Your task to perform on an android device: Open Google Maps and go to "Timeline" Image 0: 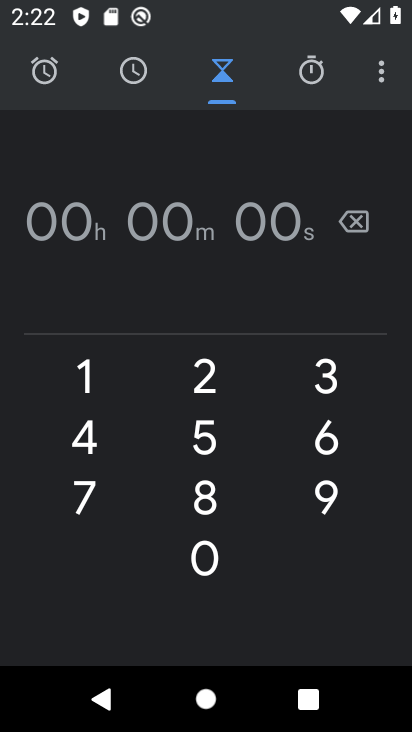
Step 0: press home button
Your task to perform on an android device: Open Google Maps and go to "Timeline" Image 1: 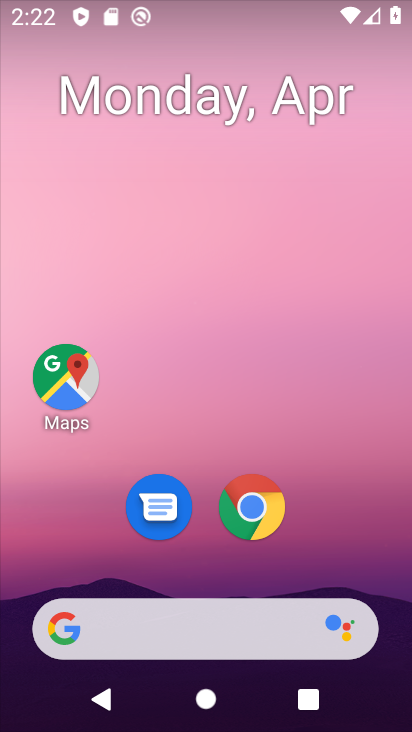
Step 1: drag from (385, 594) to (372, 534)
Your task to perform on an android device: Open Google Maps and go to "Timeline" Image 2: 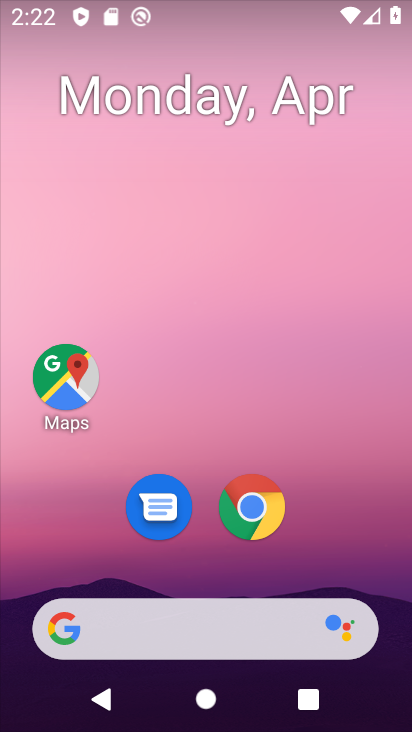
Step 2: click (58, 373)
Your task to perform on an android device: Open Google Maps and go to "Timeline" Image 3: 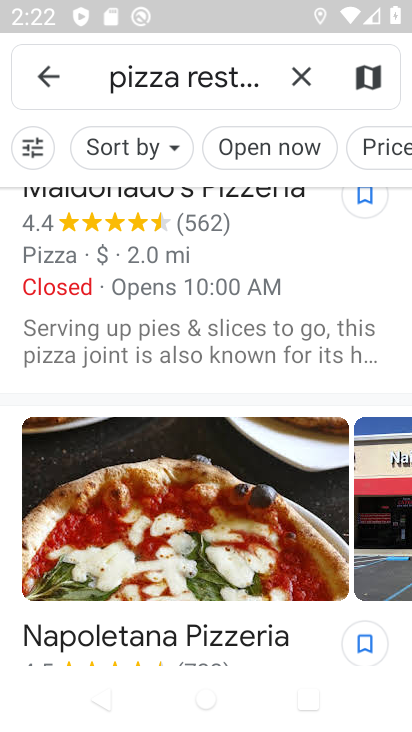
Step 3: click (45, 72)
Your task to perform on an android device: Open Google Maps and go to "Timeline" Image 4: 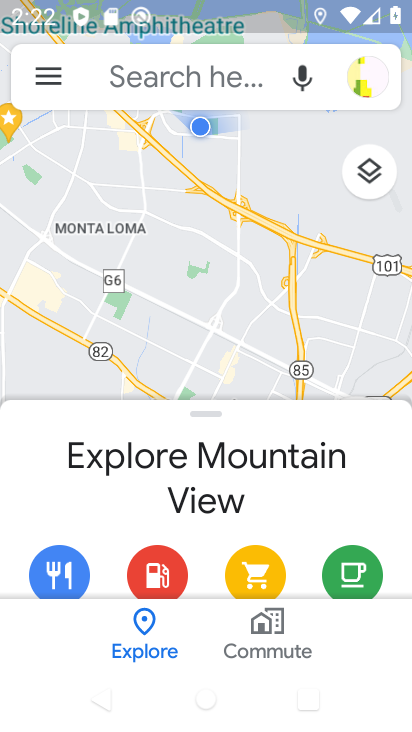
Step 4: click (49, 70)
Your task to perform on an android device: Open Google Maps and go to "Timeline" Image 5: 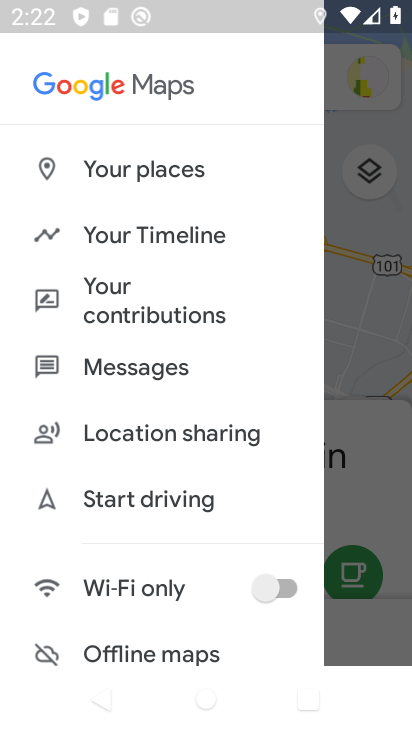
Step 5: click (156, 235)
Your task to perform on an android device: Open Google Maps and go to "Timeline" Image 6: 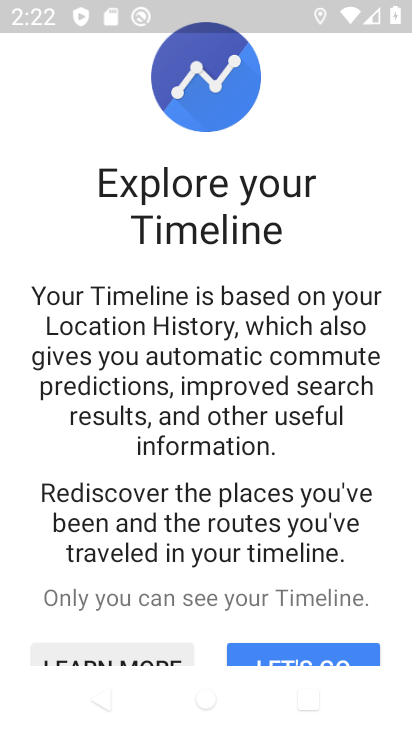
Step 6: task complete